Your task to perform on an android device: change notification settings in the gmail app Image 0: 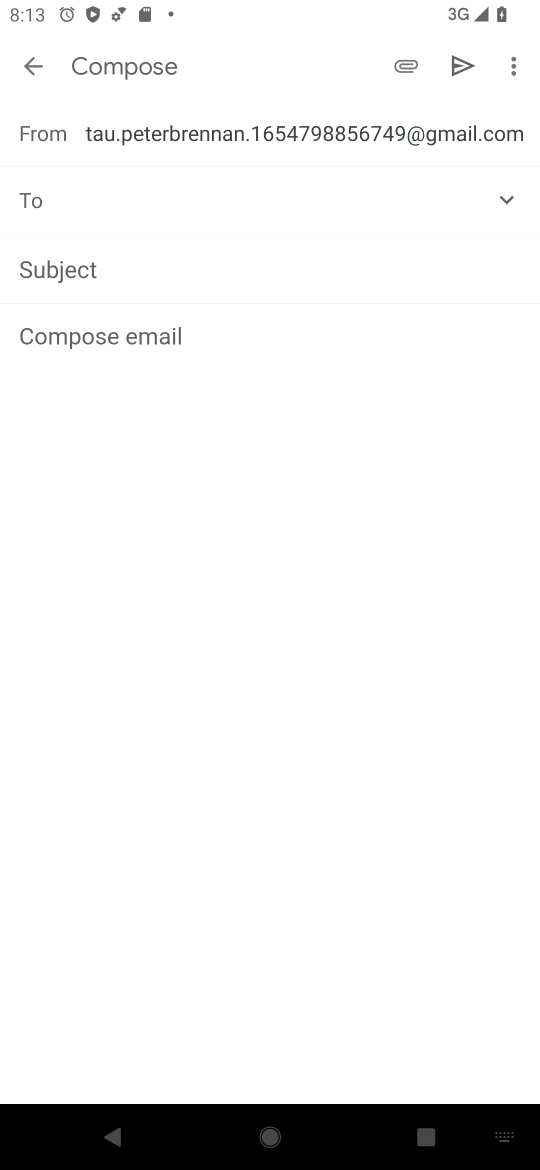
Step 0: click (29, 73)
Your task to perform on an android device: change notification settings in the gmail app Image 1: 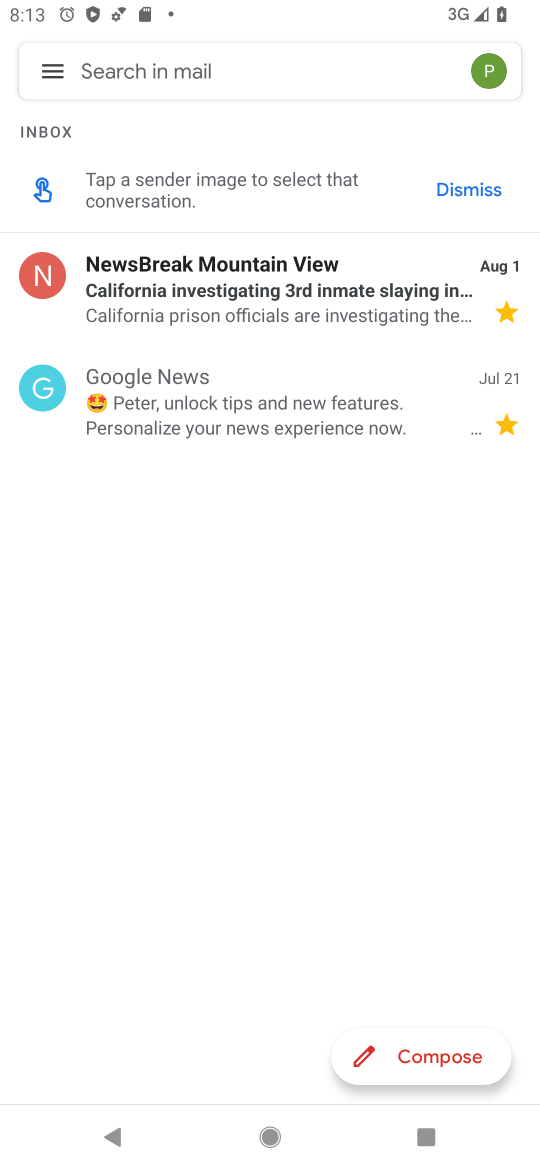
Step 1: press back button
Your task to perform on an android device: change notification settings in the gmail app Image 2: 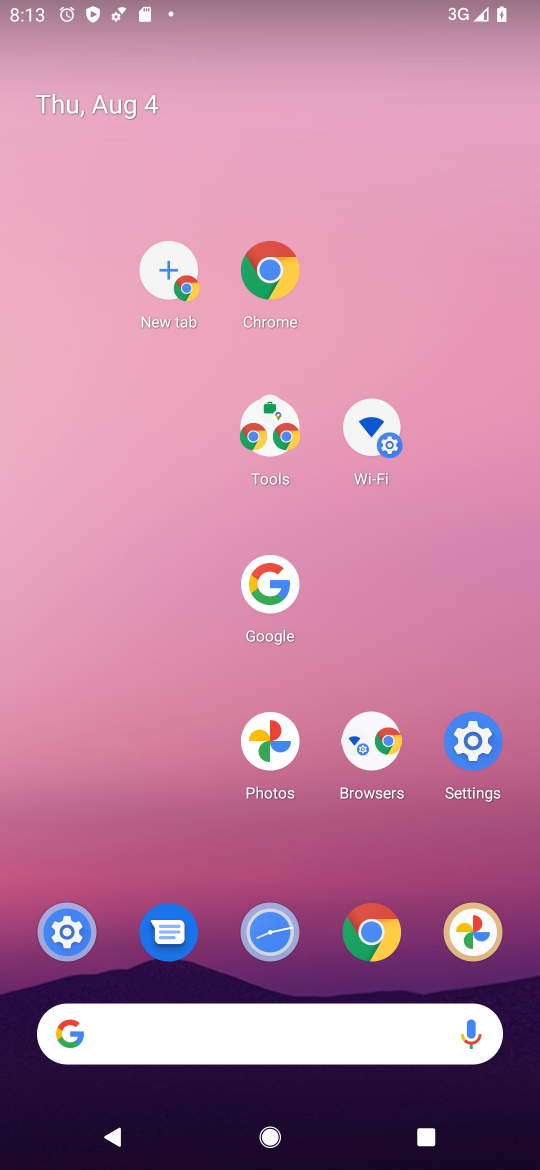
Step 2: drag from (304, 1038) to (325, 396)
Your task to perform on an android device: change notification settings in the gmail app Image 3: 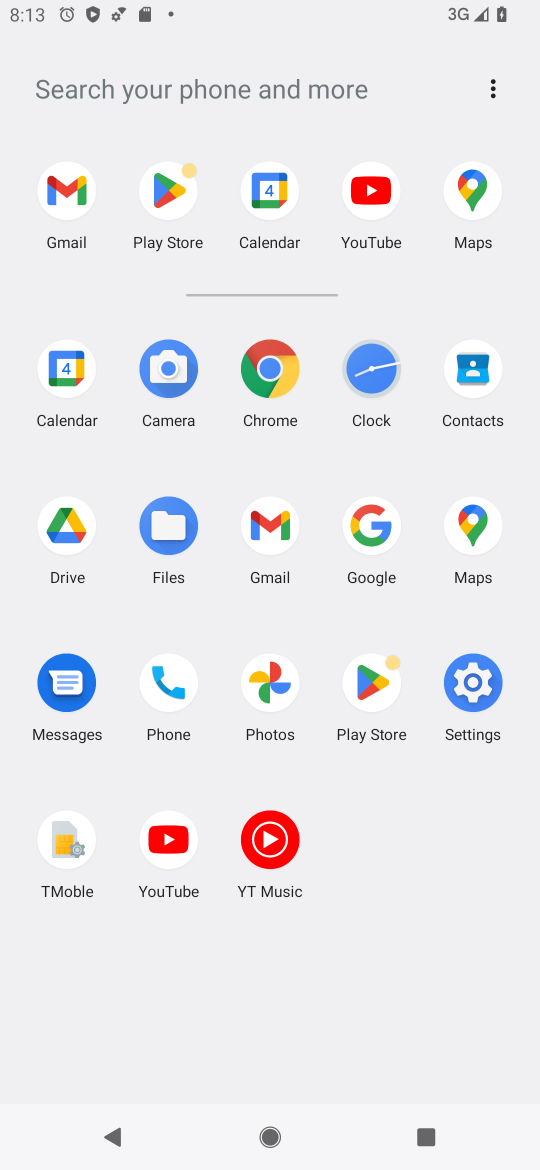
Step 3: click (260, 525)
Your task to perform on an android device: change notification settings in the gmail app Image 4: 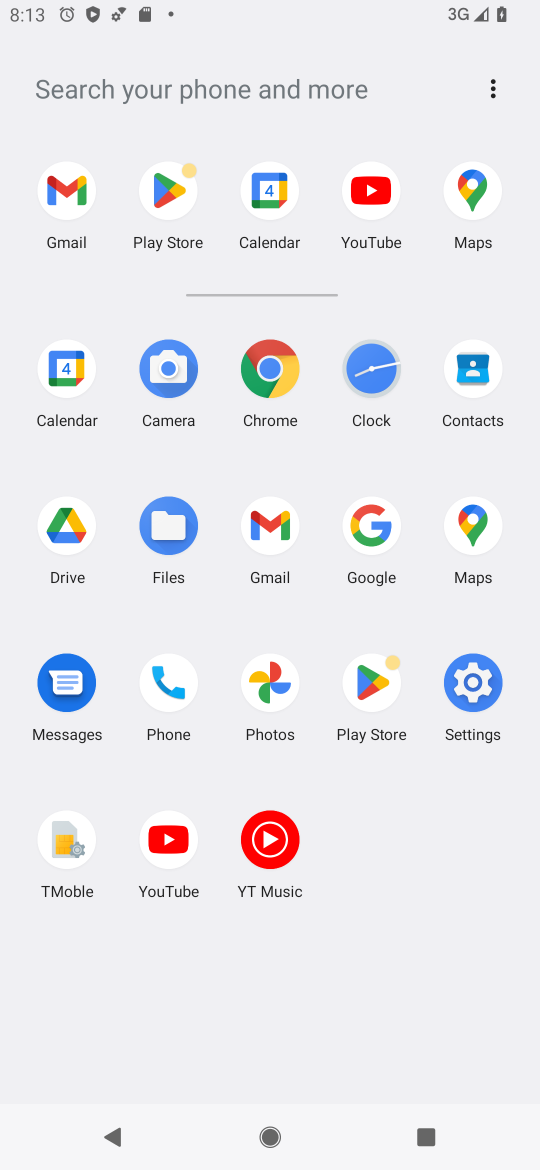
Step 4: click (261, 523)
Your task to perform on an android device: change notification settings in the gmail app Image 5: 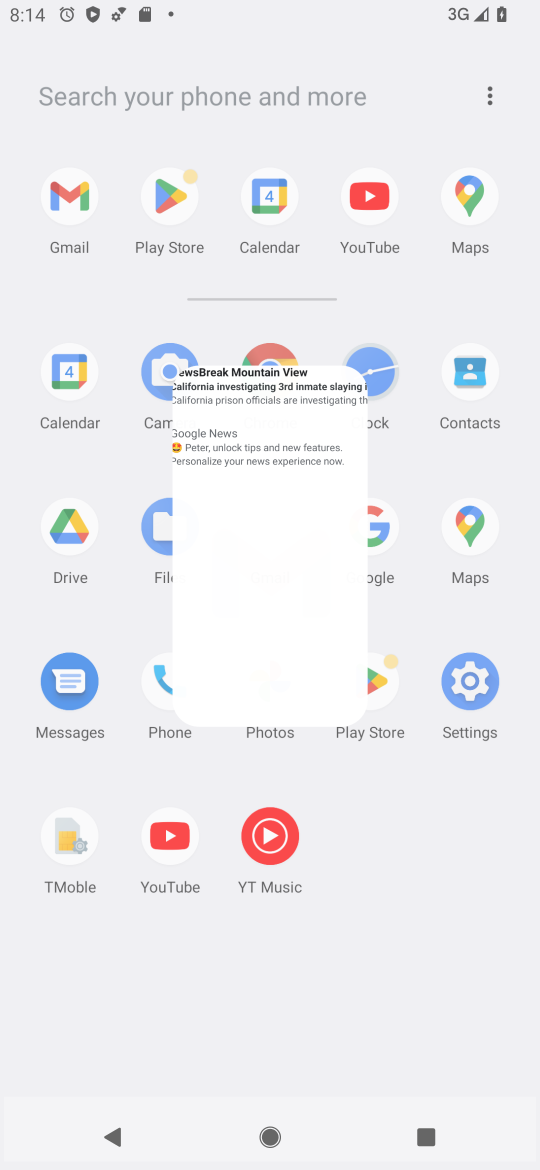
Step 5: click (263, 522)
Your task to perform on an android device: change notification settings in the gmail app Image 6: 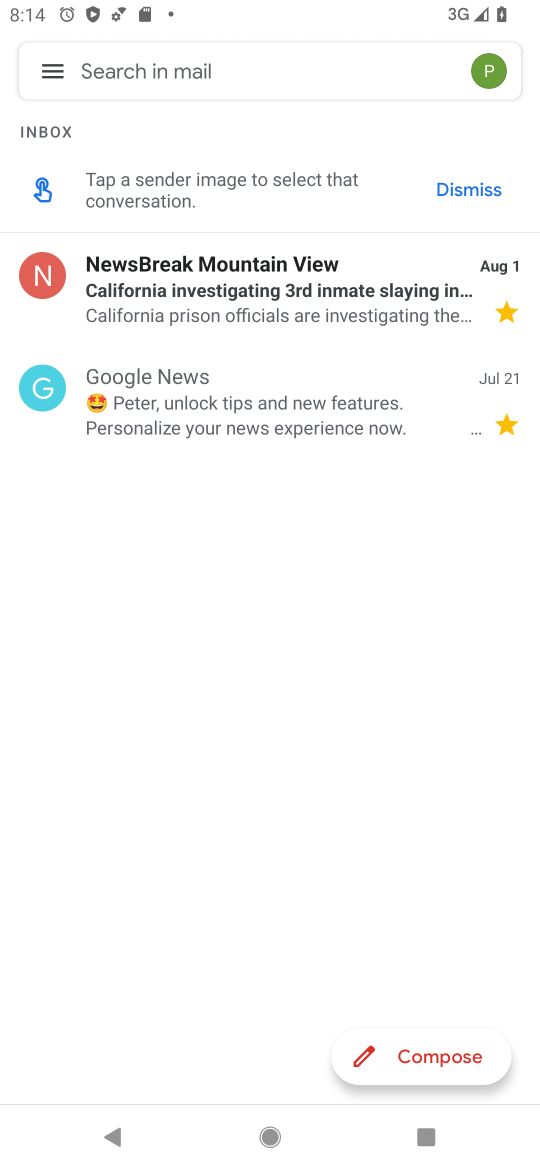
Step 6: click (42, 54)
Your task to perform on an android device: change notification settings in the gmail app Image 7: 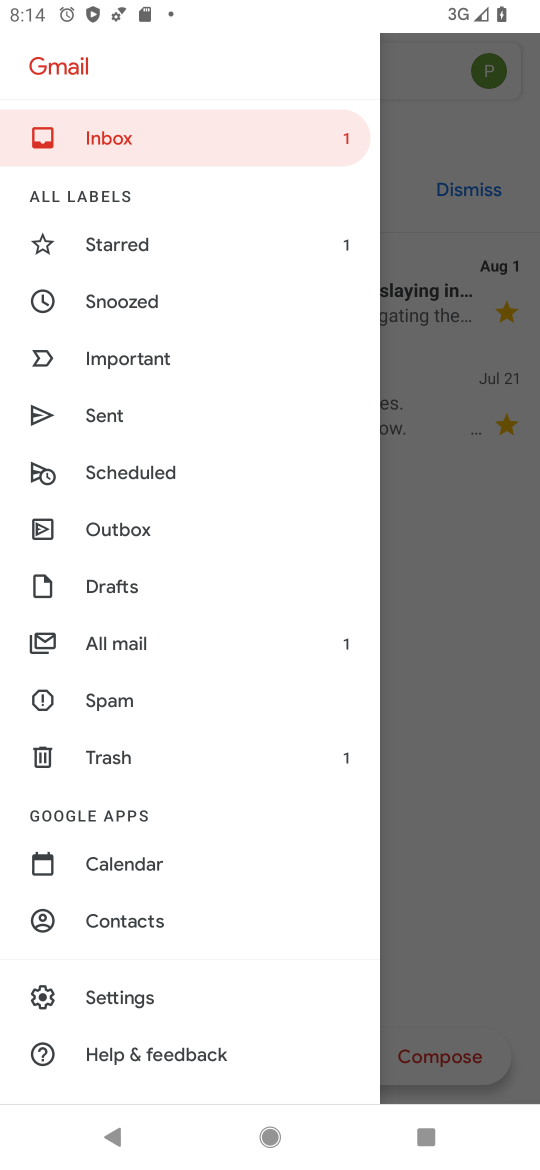
Step 7: click (131, 1002)
Your task to perform on an android device: change notification settings in the gmail app Image 8: 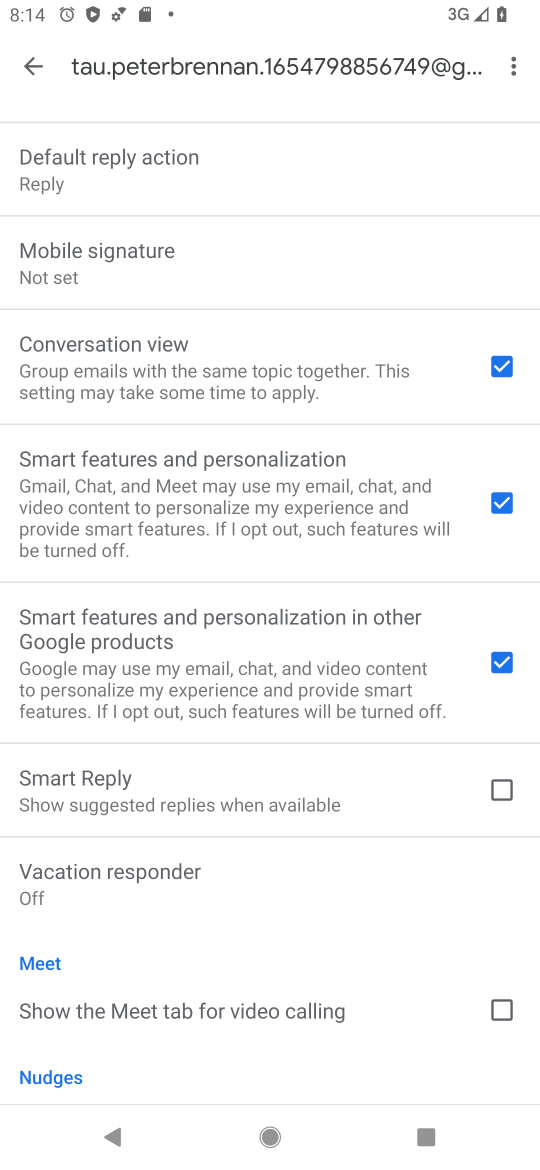
Step 8: drag from (206, 864) to (307, 468)
Your task to perform on an android device: change notification settings in the gmail app Image 9: 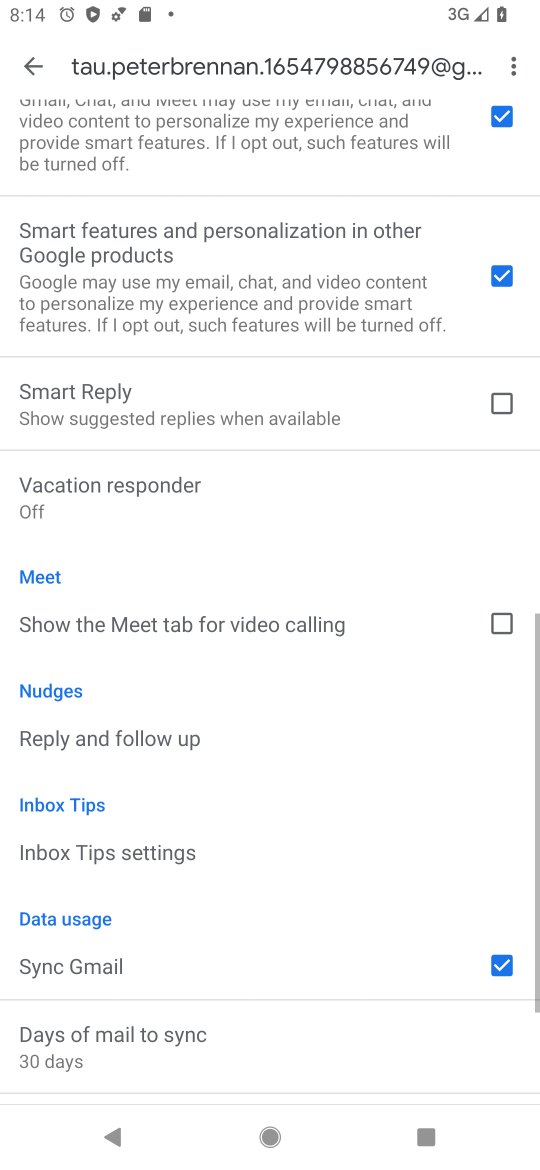
Step 9: drag from (355, 937) to (340, 366)
Your task to perform on an android device: change notification settings in the gmail app Image 10: 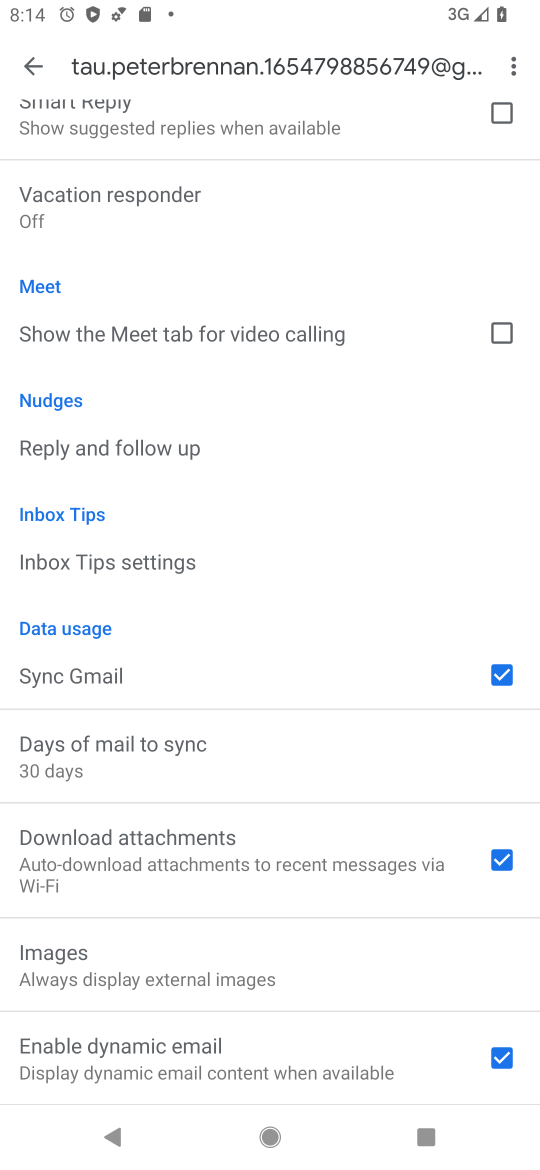
Step 10: click (161, 398)
Your task to perform on an android device: change notification settings in the gmail app Image 11: 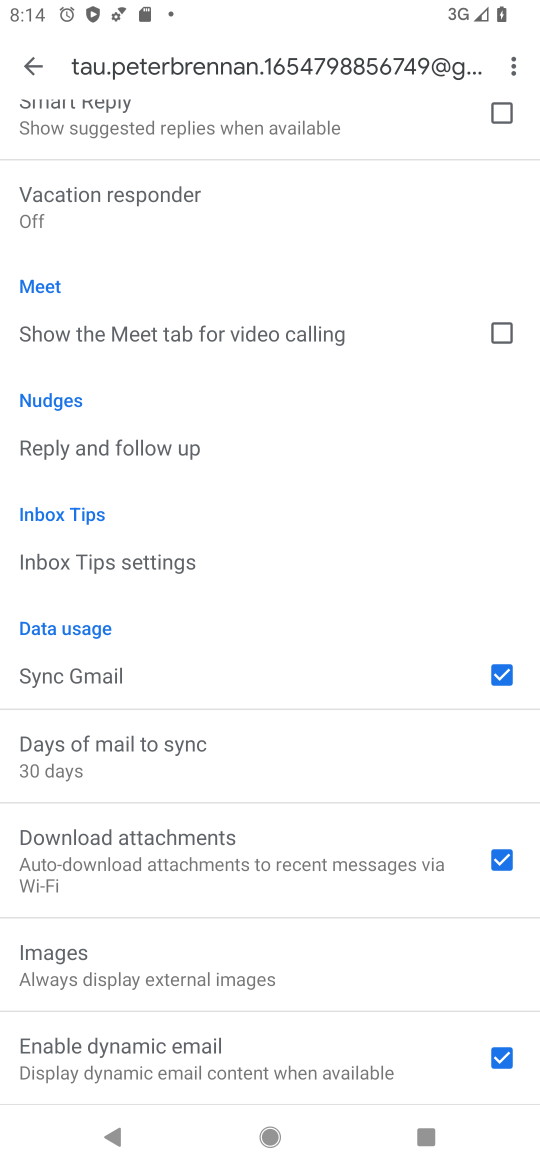
Step 11: drag from (129, 368) to (333, 1084)
Your task to perform on an android device: change notification settings in the gmail app Image 12: 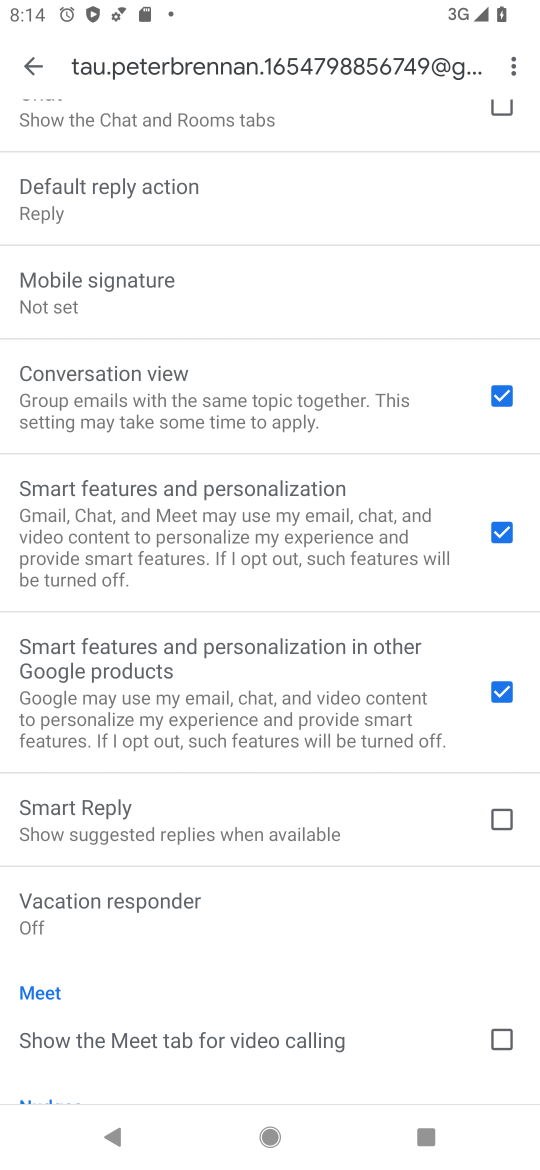
Step 12: drag from (133, 943) to (213, 929)
Your task to perform on an android device: change notification settings in the gmail app Image 13: 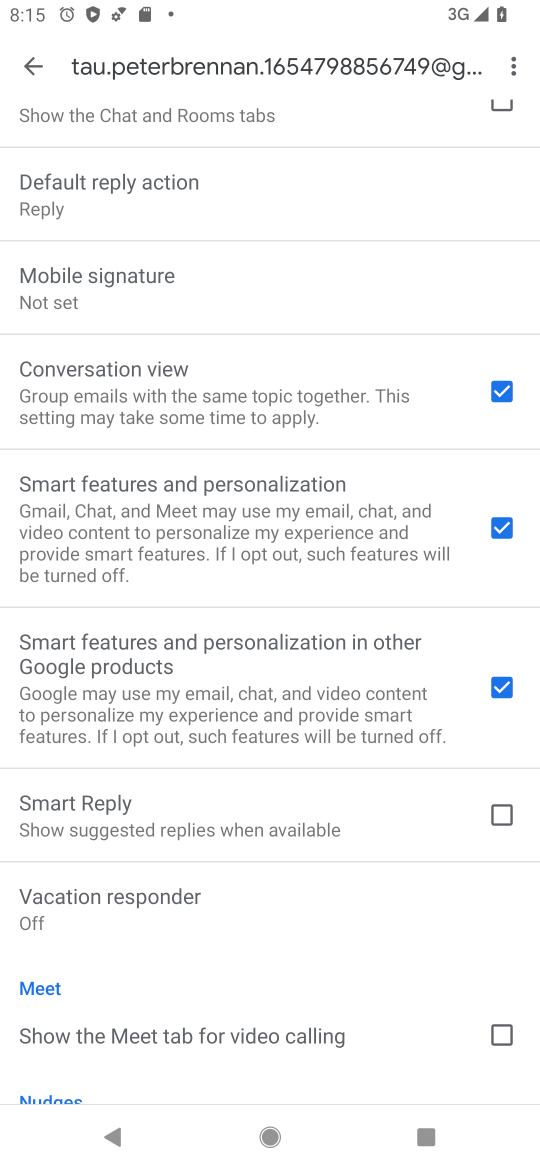
Step 13: drag from (211, 237) to (224, 897)
Your task to perform on an android device: change notification settings in the gmail app Image 14: 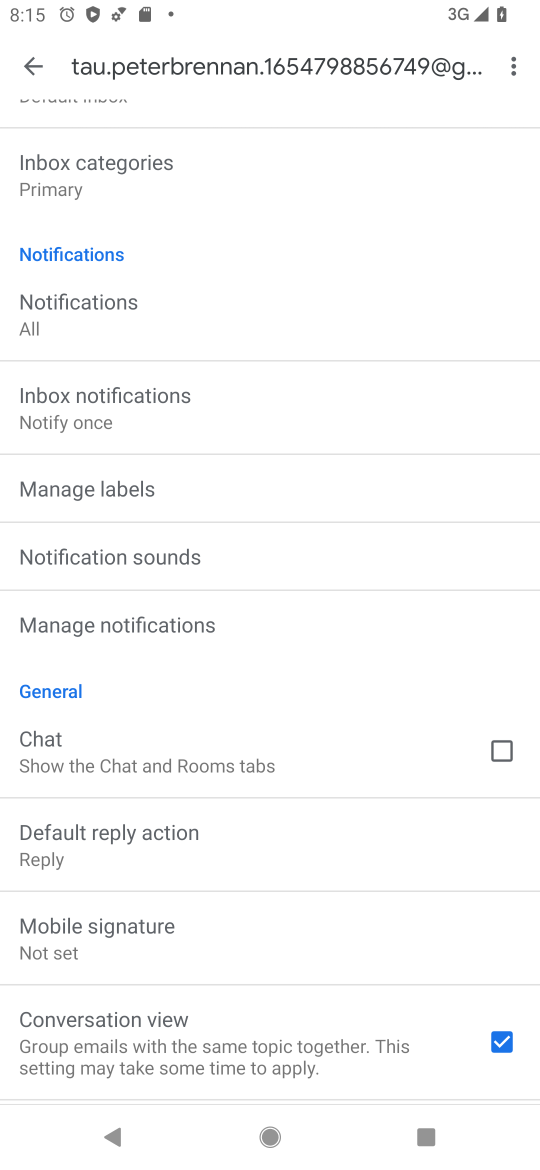
Step 14: click (58, 312)
Your task to perform on an android device: change notification settings in the gmail app Image 15: 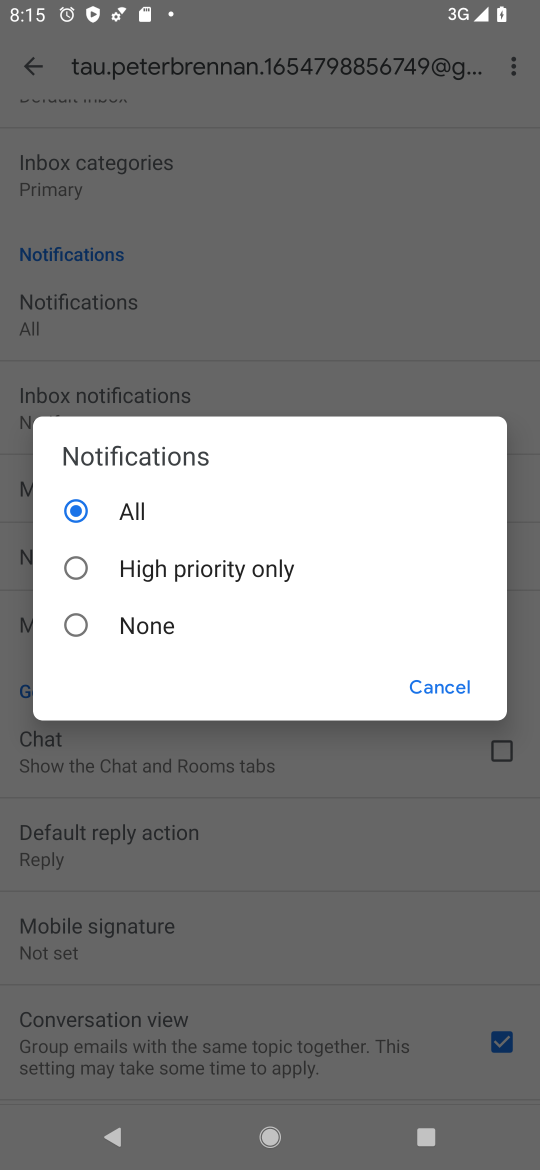
Step 15: click (84, 575)
Your task to perform on an android device: change notification settings in the gmail app Image 16: 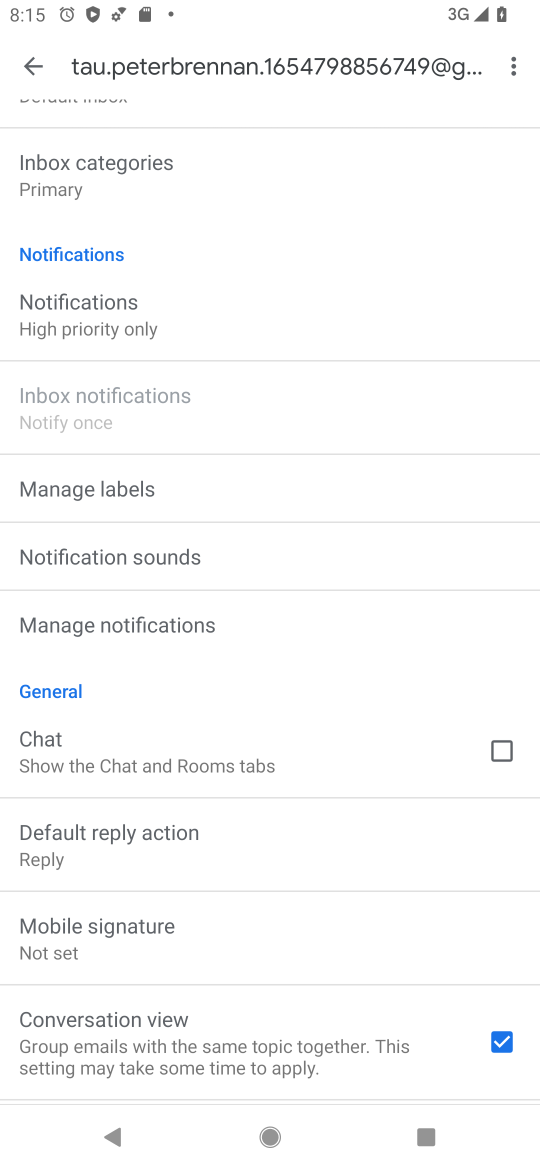
Step 16: task complete